Your task to perform on an android device: What's the weather going to be tomorrow? Image 0: 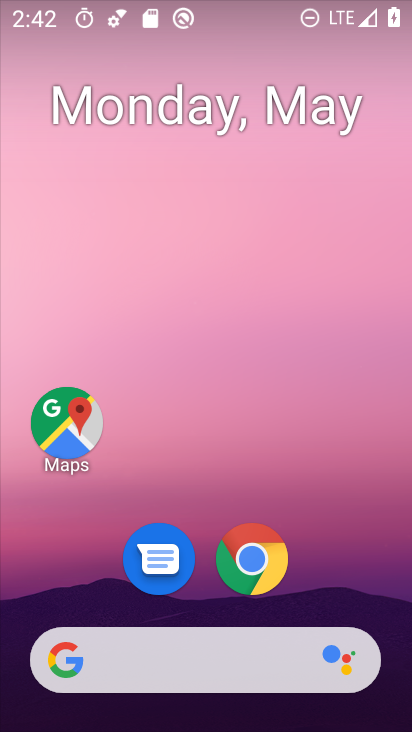
Step 0: click (102, 662)
Your task to perform on an android device: What's the weather going to be tomorrow? Image 1: 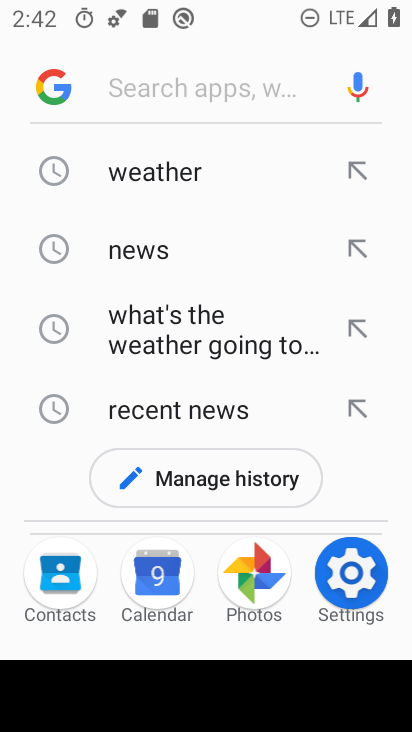
Step 1: click (134, 170)
Your task to perform on an android device: What's the weather going to be tomorrow? Image 2: 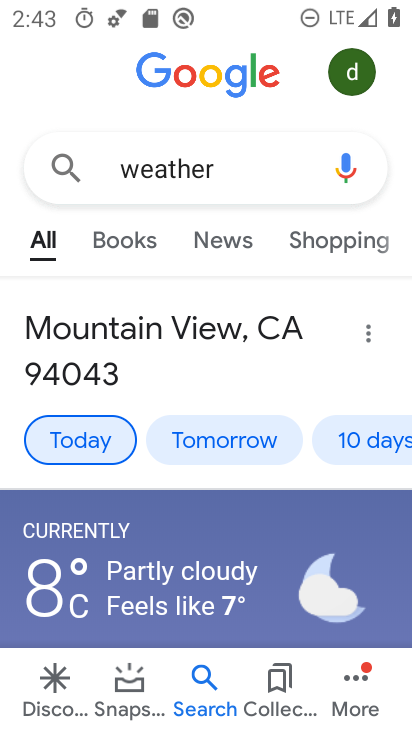
Step 2: click (222, 439)
Your task to perform on an android device: What's the weather going to be tomorrow? Image 3: 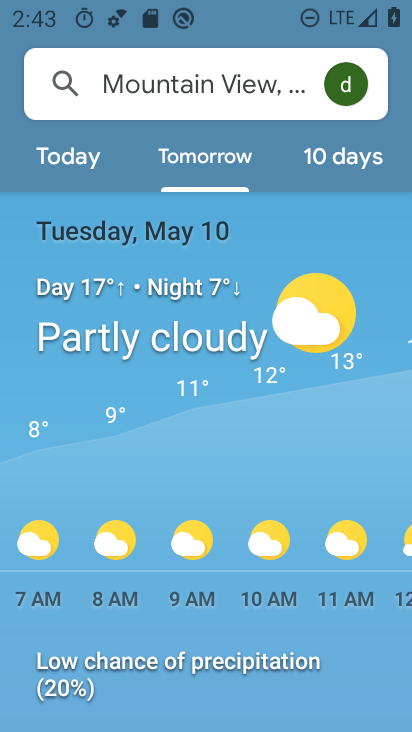
Step 3: task complete